Your task to perform on an android device: add a contact in the contacts app Image 0: 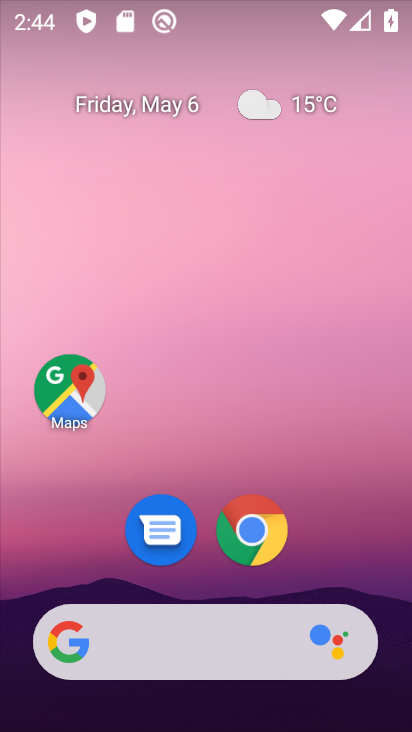
Step 0: drag from (379, 543) to (326, 128)
Your task to perform on an android device: add a contact in the contacts app Image 1: 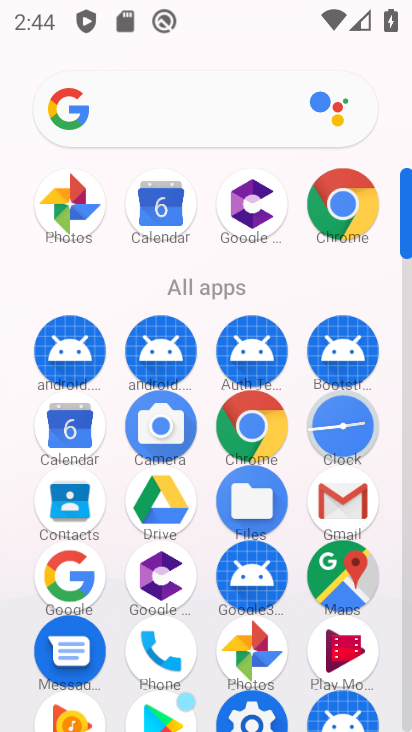
Step 1: click (78, 520)
Your task to perform on an android device: add a contact in the contacts app Image 2: 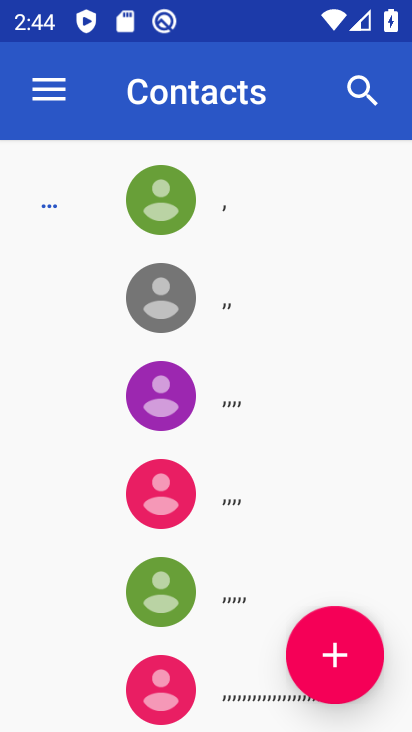
Step 2: task complete